Your task to perform on an android device: turn off improve location accuracy Image 0: 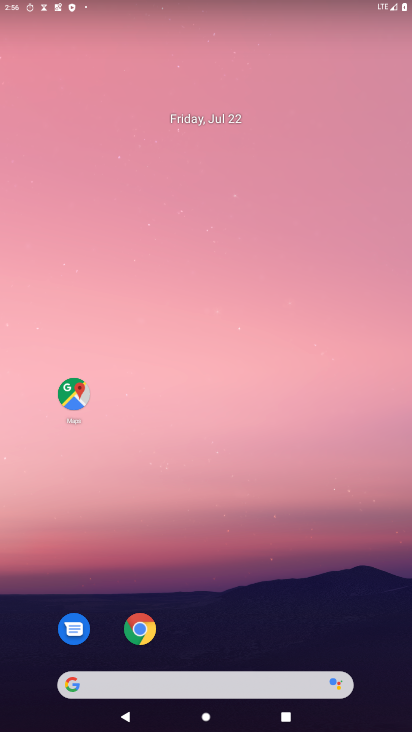
Step 0: drag from (236, 562) to (288, 54)
Your task to perform on an android device: turn off improve location accuracy Image 1: 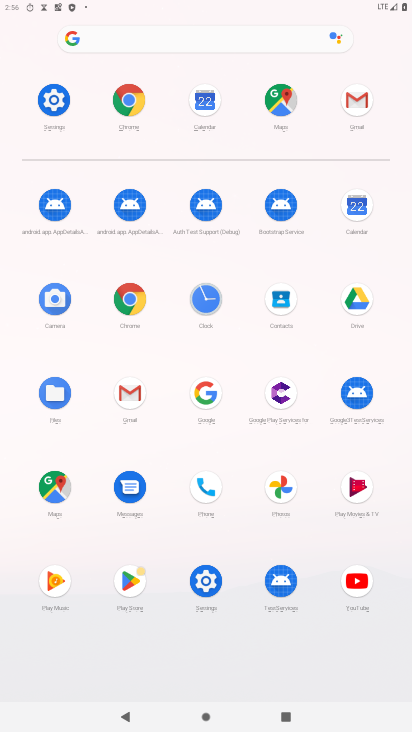
Step 1: click (204, 586)
Your task to perform on an android device: turn off improve location accuracy Image 2: 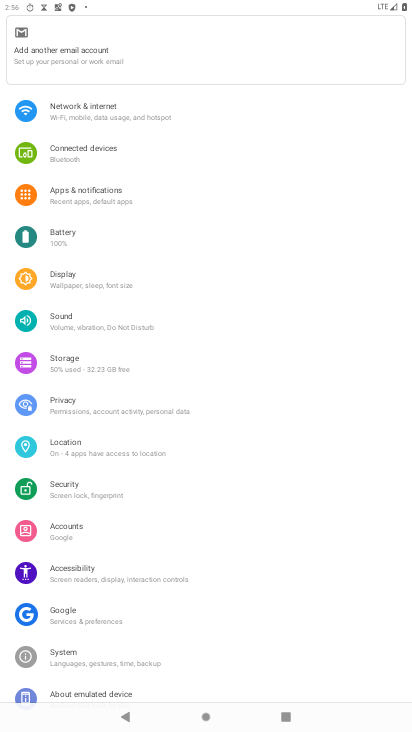
Step 2: click (103, 448)
Your task to perform on an android device: turn off improve location accuracy Image 3: 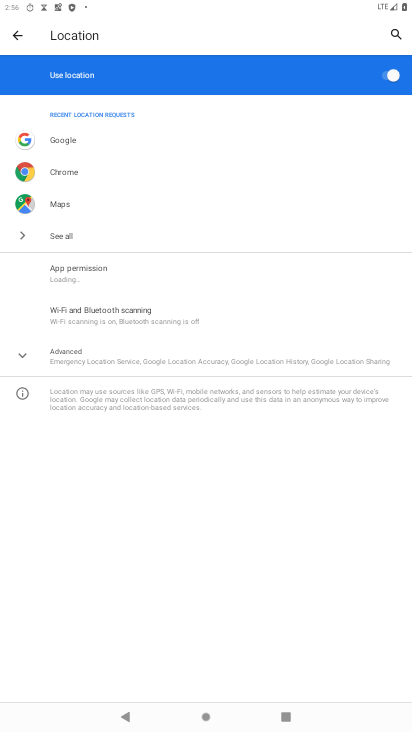
Step 3: click (117, 368)
Your task to perform on an android device: turn off improve location accuracy Image 4: 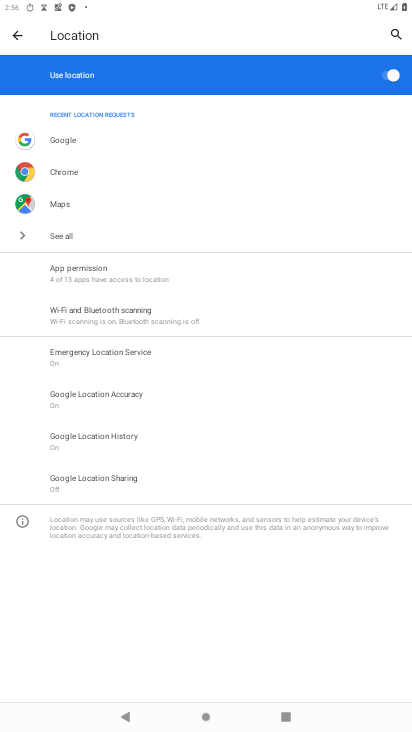
Step 4: click (109, 401)
Your task to perform on an android device: turn off improve location accuracy Image 5: 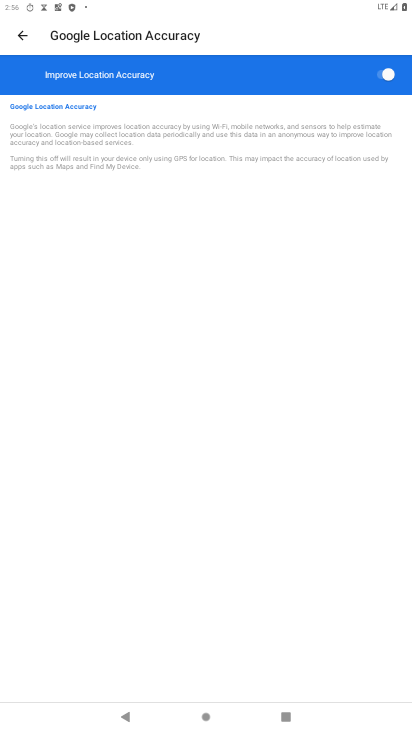
Step 5: click (383, 73)
Your task to perform on an android device: turn off improve location accuracy Image 6: 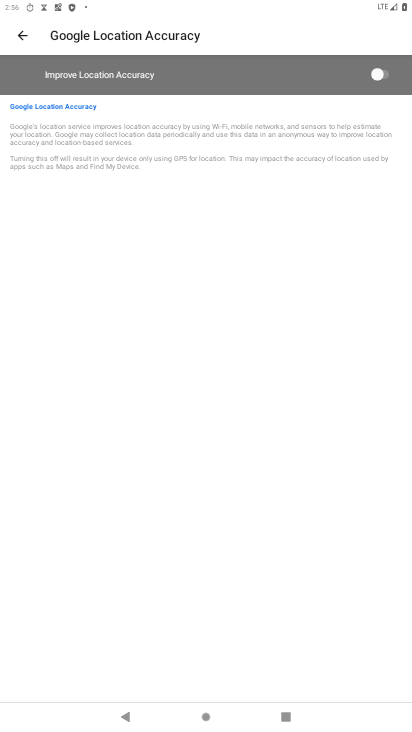
Step 6: task complete